Your task to perform on an android device: turn on javascript in the chrome app Image 0: 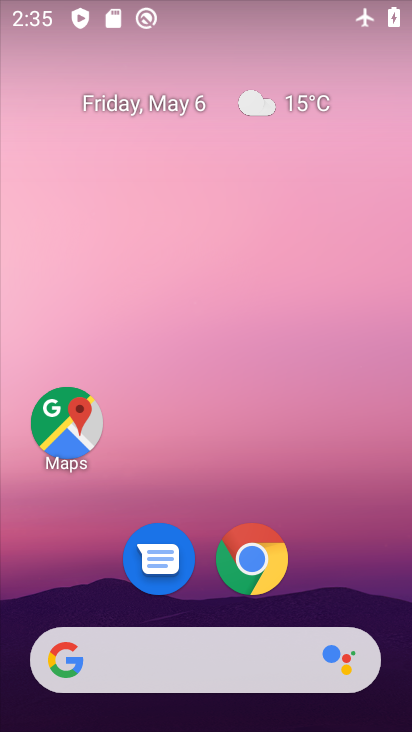
Step 0: click (236, 568)
Your task to perform on an android device: turn on javascript in the chrome app Image 1: 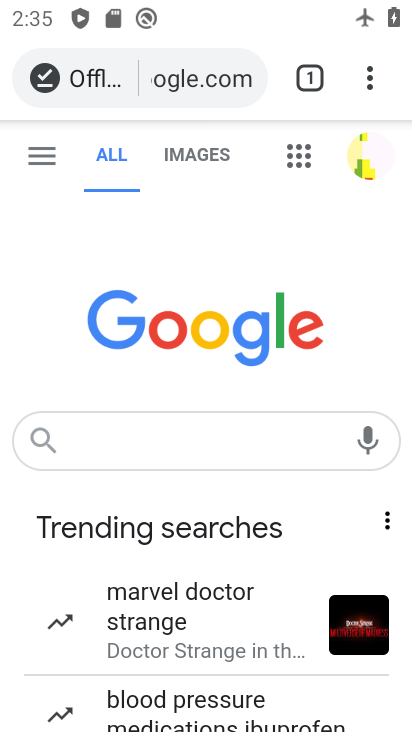
Step 1: click (363, 89)
Your task to perform on an android device: turn on javascript in the chrome app Image 2: 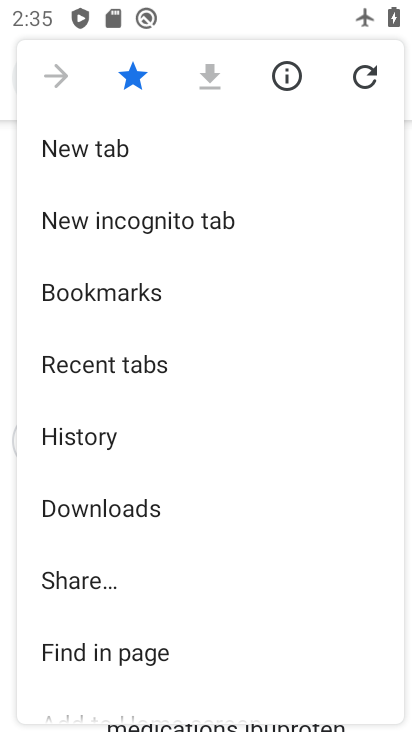
Step 2: drag from (158, 615) to (180, 175)
Your task to perform on an android device: turn on javascript in the chrome app Image 3: 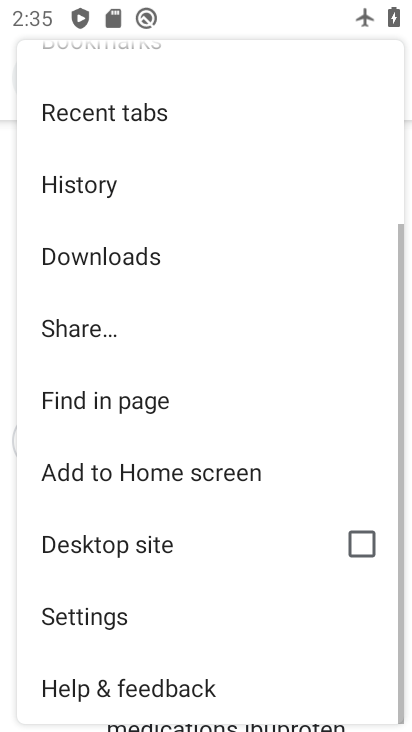
Step 3: click (197, 619)
Your task to perform on an android device: turn on javascript in the chrome app Image 4: 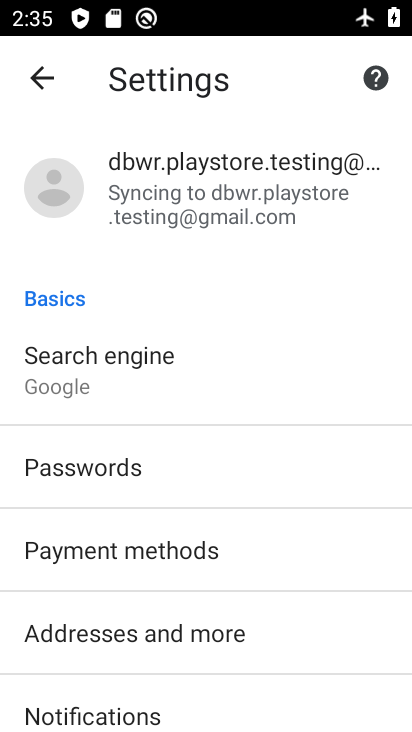
Step 4: drag from (192, 716) to (242, 297)
Your task to perform on an android device: turn on javascript in the chrome app Image 5: 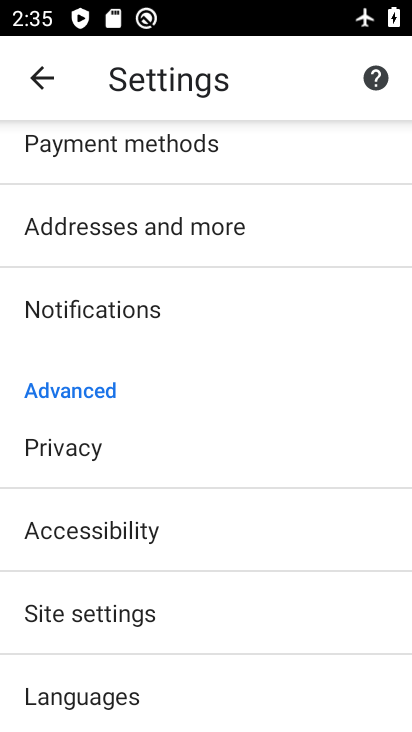
Step 5: drag from (217, 626) to (220, 392)
Your task to perform on an android device: turn on javascript in the chrome app Image 6: 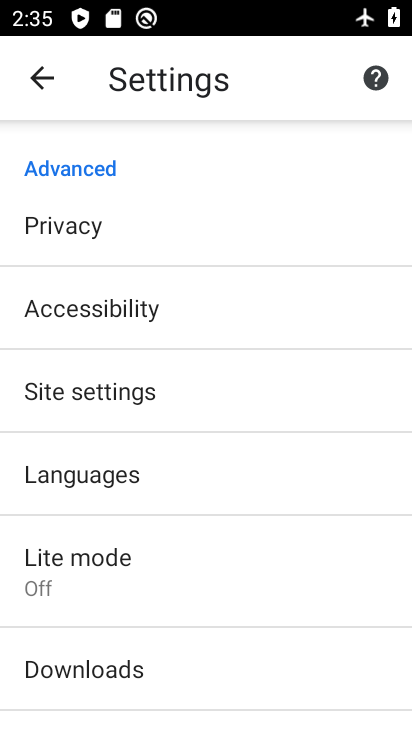
Step 6: click (215, 399)
Your task to perform on an android device: turn on javascript in the chrome app Image 7: 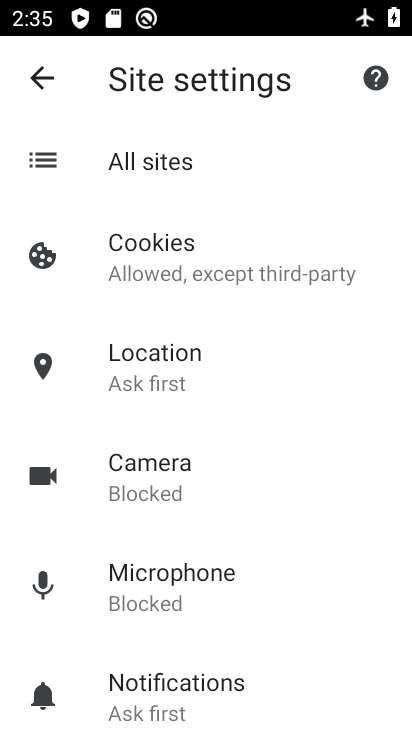
Step 7: drag from (226, 513) to (267, 319)
Your task to perform on an android device: turn on javascript in the chrome app Image 8: 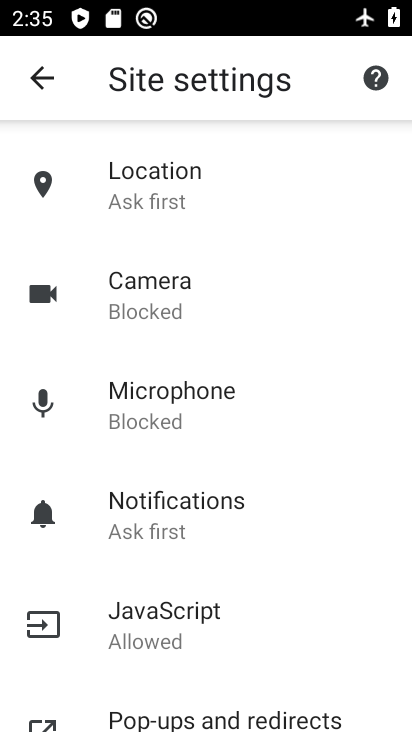
Step 8: click (233, 648)
Your task to perform on an android device: turn on javascript in the chrome app Image 9: 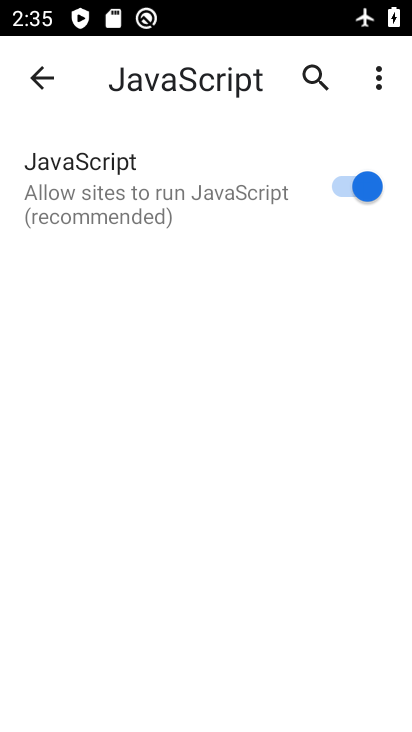
Step 9: task complete